Your task to perform on an android device: Open a new Chrome private tab Image 0: 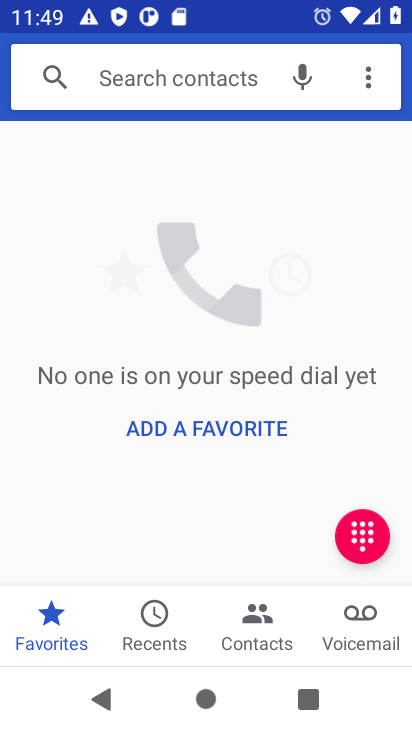
Step 0: press home button
Your task to perform on an android device: Open a new Chrome private tab Image 1: 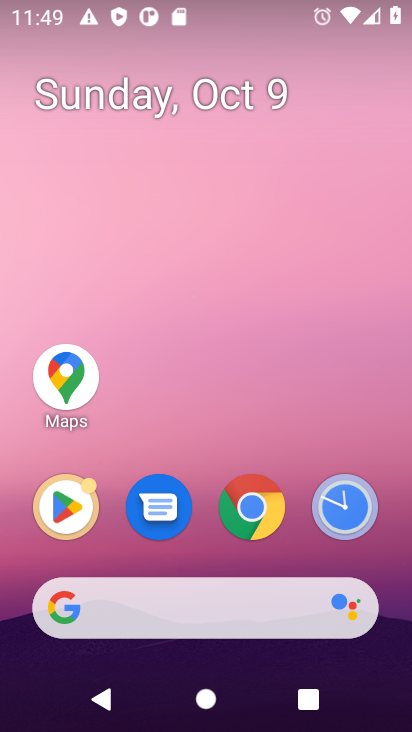
Step 1: drag from (386, 534) to (366, 74)
Your task to perform on an android device: Open a new Chrome private tab Image 2: 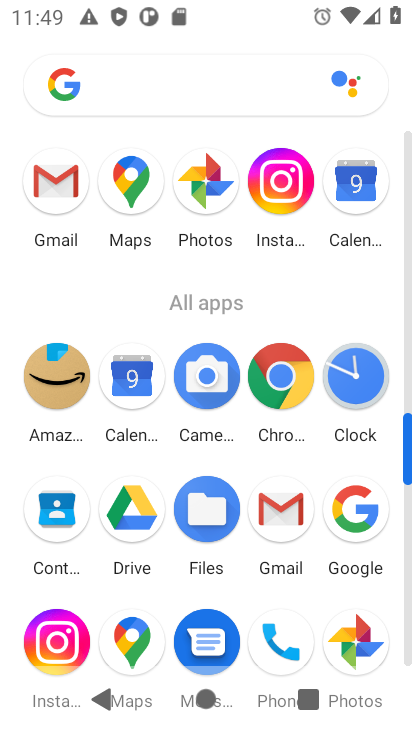
Step 2: click (294, 373)
Your task to perform on an android device: Open a new Chrome private tab Image 3: 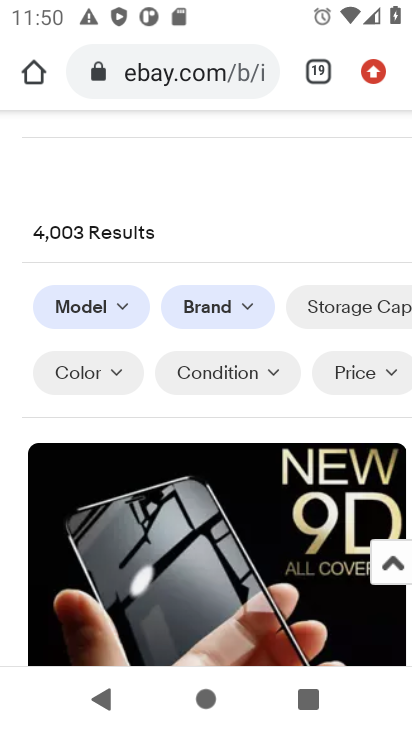
Step 3: drag from (240, 553) to (241, 259)
Your task to perform on an android device: Open a new Chrome private tab Image 4: 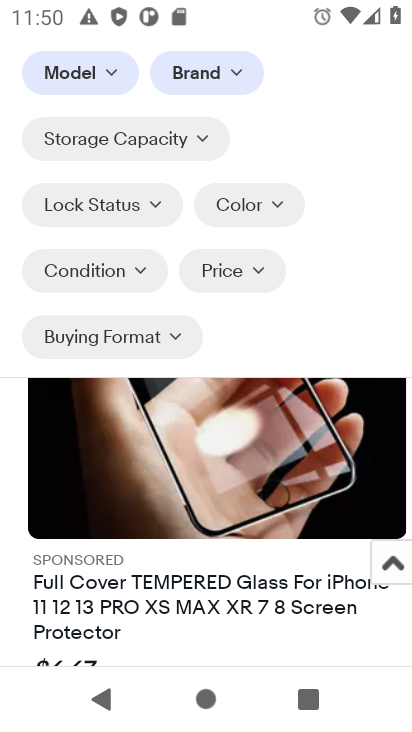
Step 4: drag from (337, 146) to (277, 502)
Your task to perform on an android device: Open a new Chrome private tab Image 5: 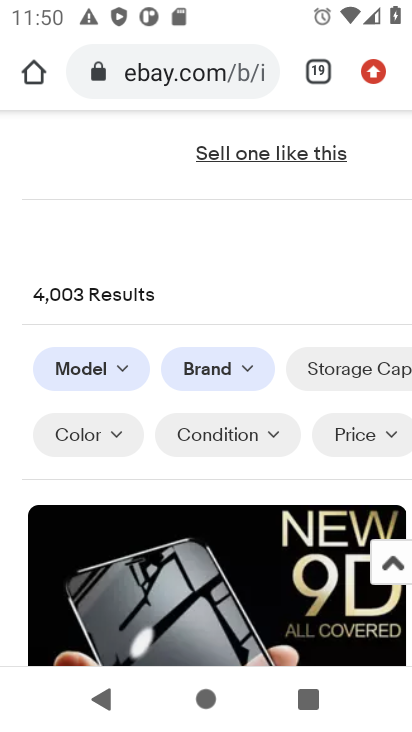
Step 5: click (374, 69)
Your task to perform on an android device: Open a new Chrome private tab Image 6: 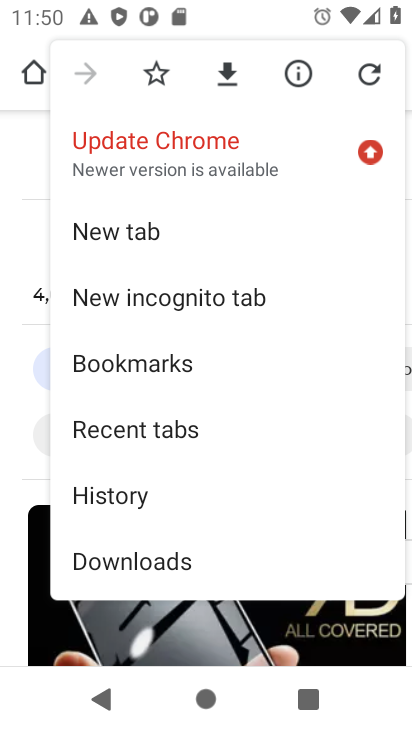
Step 6: click (155, 234)
Your task to perform on an android device: Open a new Chrome private tab Image 7: 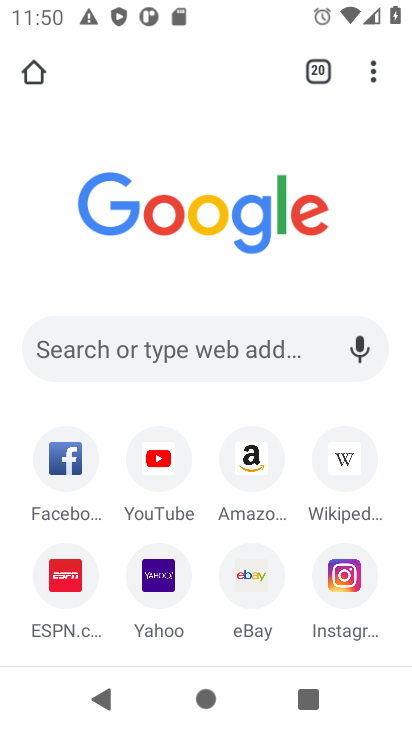
Step 7: task complete